Your task to perform on an android device: set an alarm Image 0: 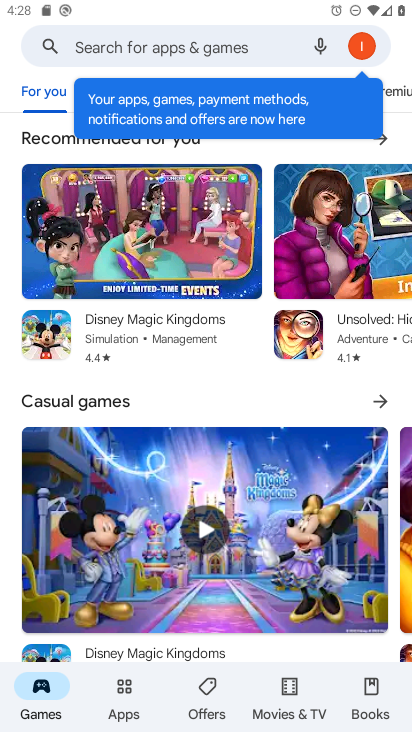
Step 0: press home button
Your task to perform on an android device: set an alarm Image 1: 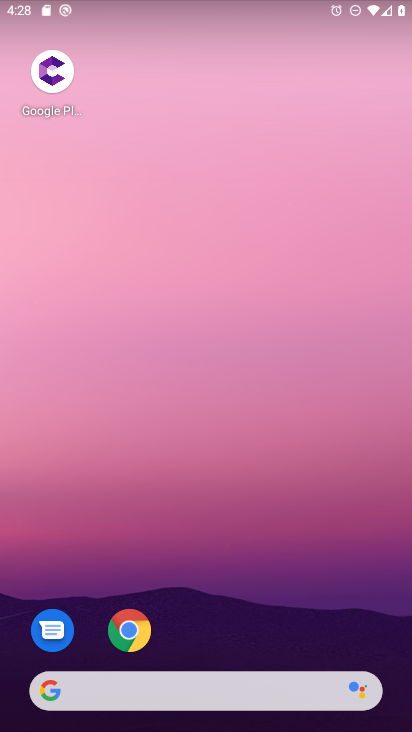
Step 1: drag from (227, 578) to (201, 50)
Your task to perform on an android device: set an alarm Image 2: 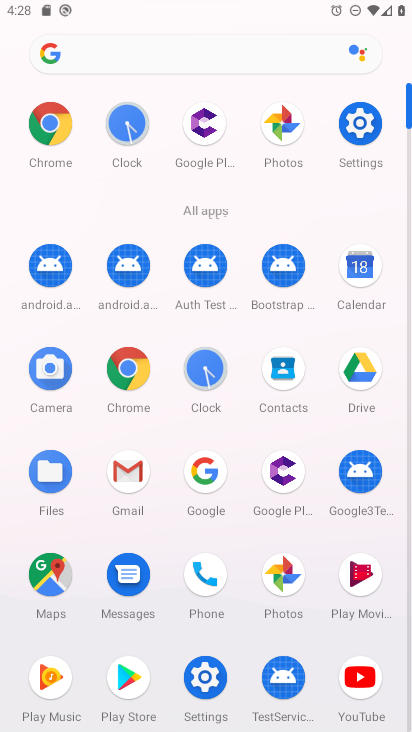
Step 2: click (118, 112)
Your task to perform on an android device: set an alarm Image 3: 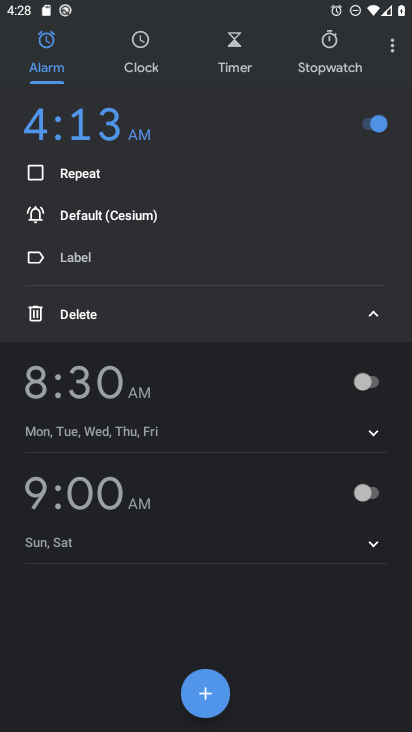
Step 3: click (207, 703)
Your task to perform on an android device: set an alarm Image 4: 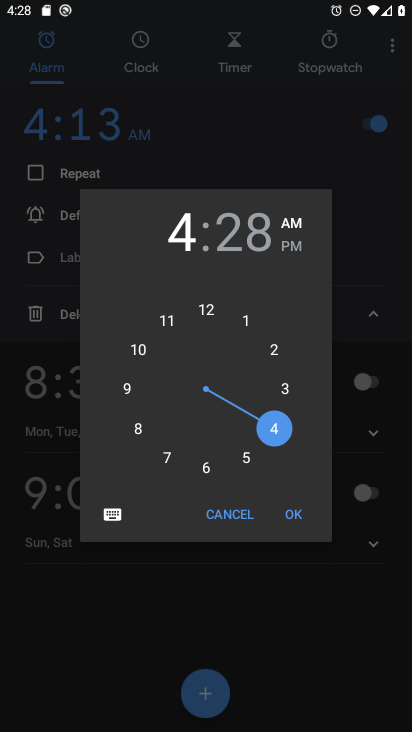
Step 4: click (291, 515)
Your task to perform on an android device: set an alarm Image 5: 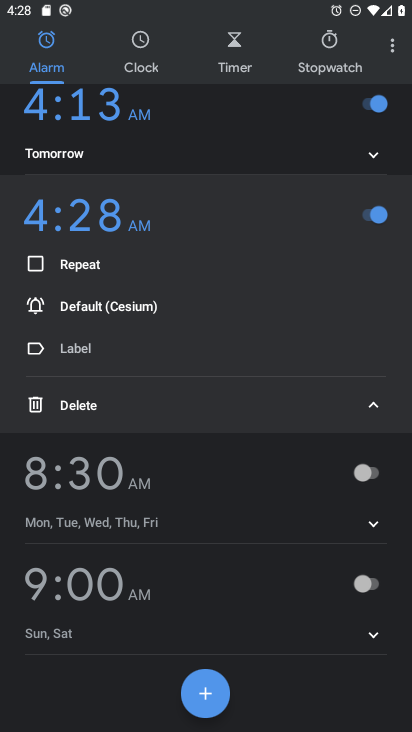
Step 5: task complete